Your task to perform on an android device: Turn on the flashlight Image 0: 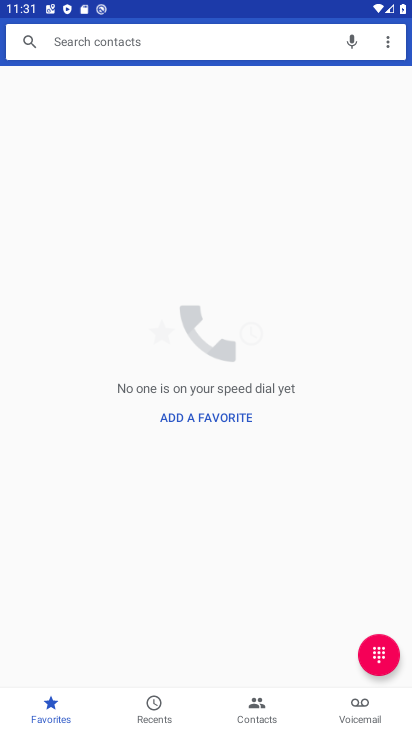
Step 0: press home button
Your task to perform on an android device: Turn on the flashlight Image 1: 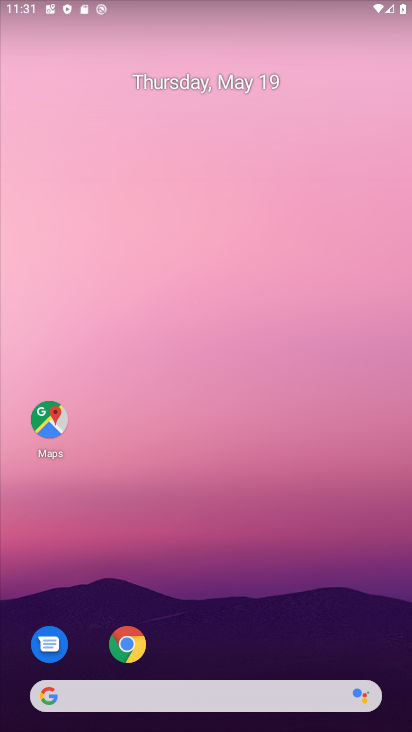
Step 1: drag from (225, 682) to (162, 4)
Your task to perform on an android device: Turn on the flashlight Image 2: 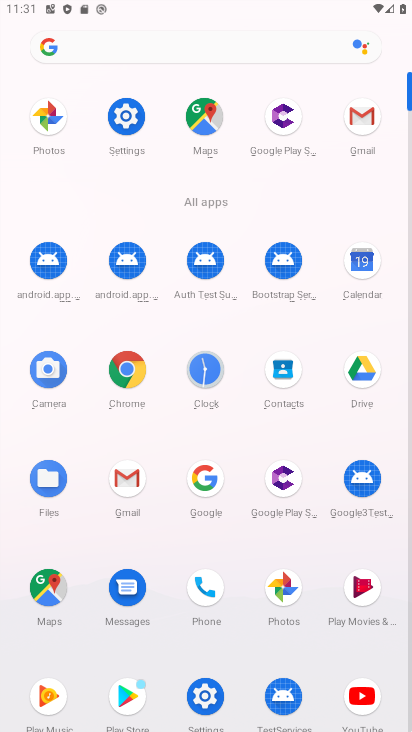
Step 2: click (126, 138)
Your task to perform on an android device: Turn on the flashlight Image 3: 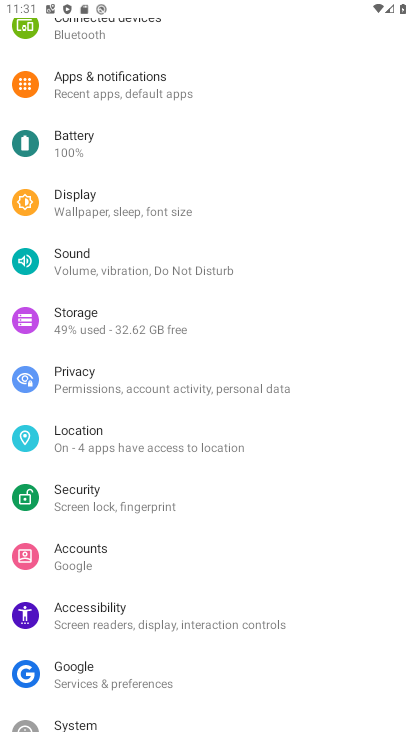
Step 3: task complete